Your task to perform on an android device: change the clock display to analog Image 0: 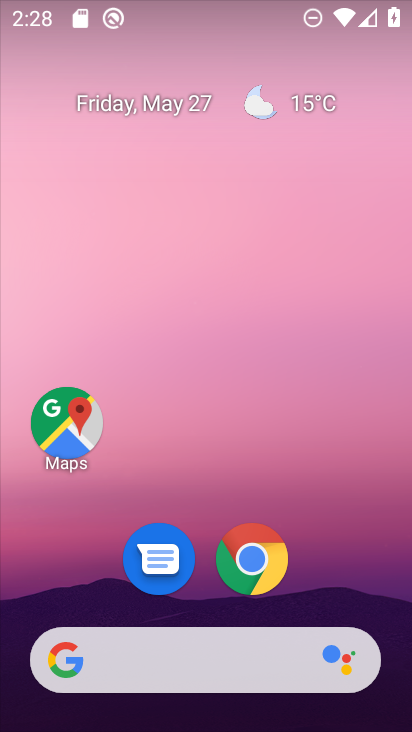
Step 0: drag from (138, 616) to (207, 8)
Your task to perform on an android device: change the clock display to analog Image 1: 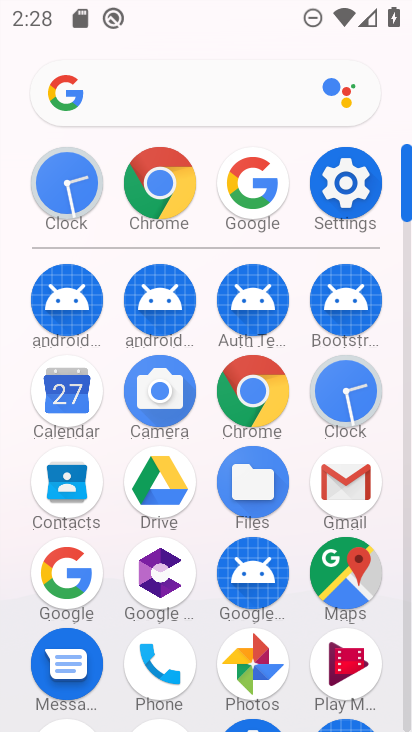
Step 1: click (353, 390)
Your task to perform on an android device: change the clock display to analog Image 2: 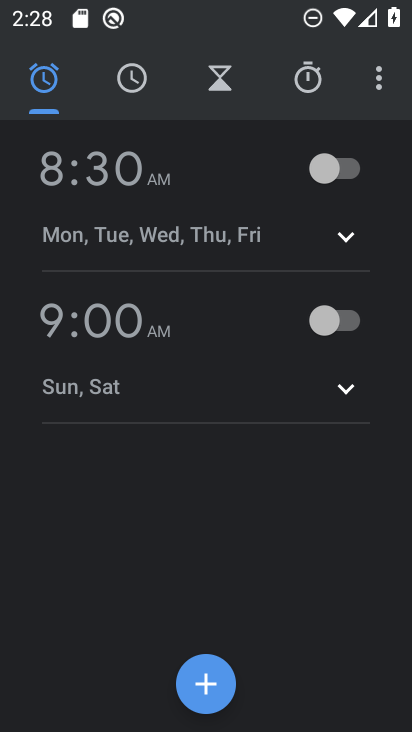
Step 2: click (373, 72)
Your task to perform on an android device: change the clock display to analog Image 3: 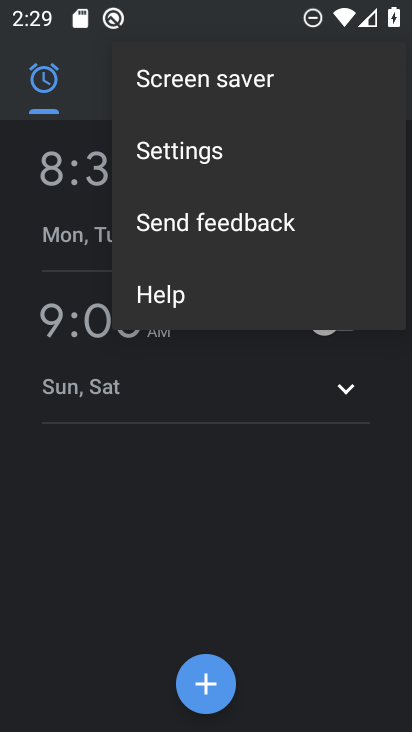
Step 3: click (248, 147)
Your task to perform on an android device: change the clock display to analog Image 4: 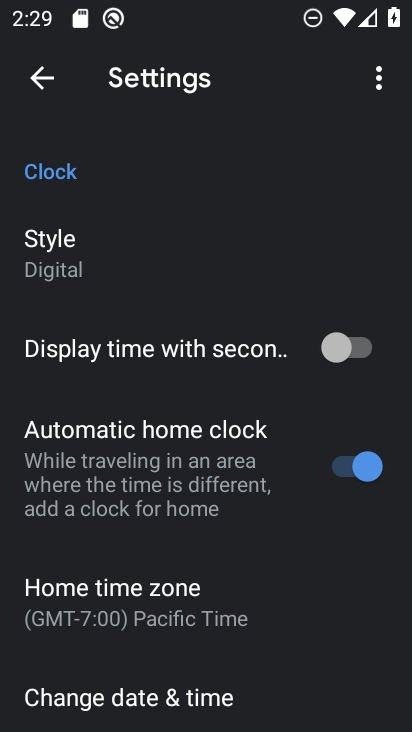
Step 4: click (176, 271)
Your task to perform on an android device: change the clock display to analog Image 5: 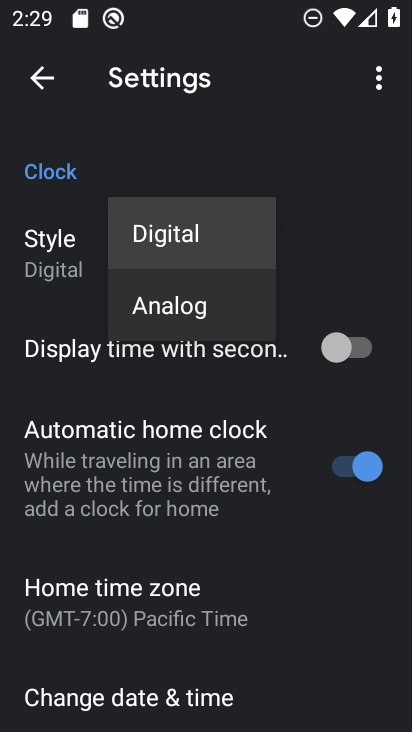
Step 5: click (148, 308)
Your task to perform on an android device: change the clock display to analog Image 6: 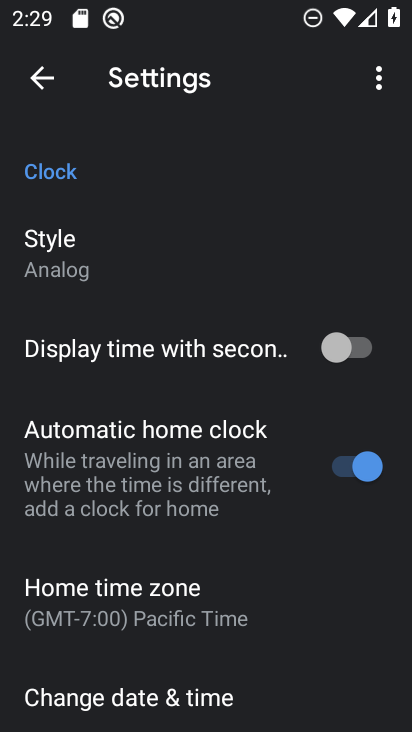
Step 6: task complete